Your task to perform on an android device: turn pop-ups off in chrome Image 0: 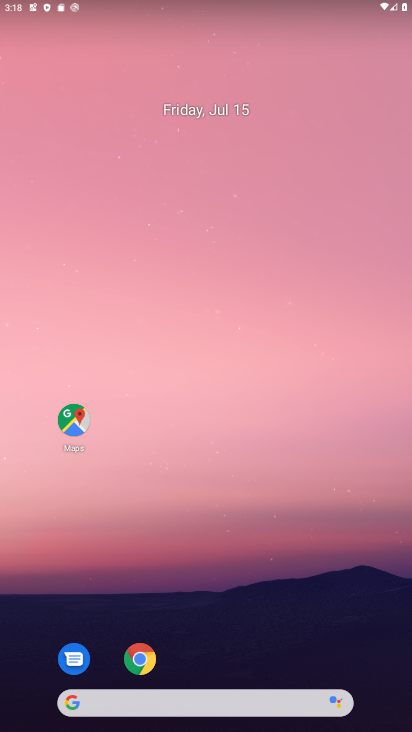
Step 0: click (152, 660)
Your task to perform on an android device: turn pop-ups off in chrome Image 1: 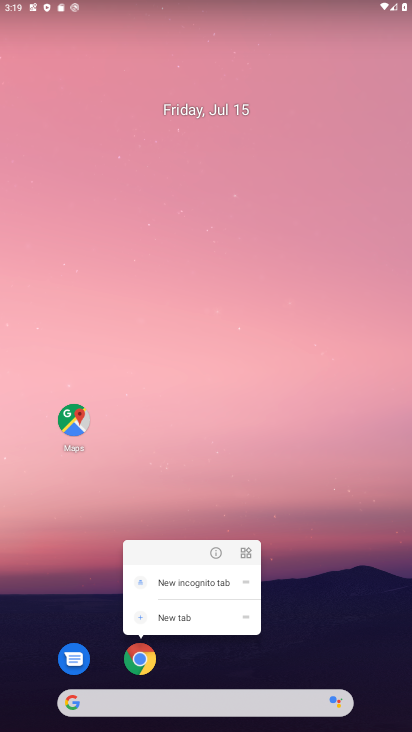
Step 1: click (151, 661)
Your task to perform on an android device: turn pop-ups off in chrome Image 2: 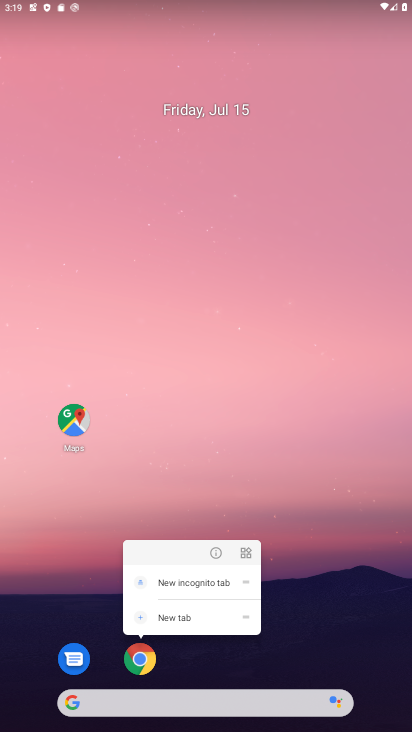
Step 2: click (129, 654)
Your task to perform on an android device: turn pop-ups off in chrome Image 3: 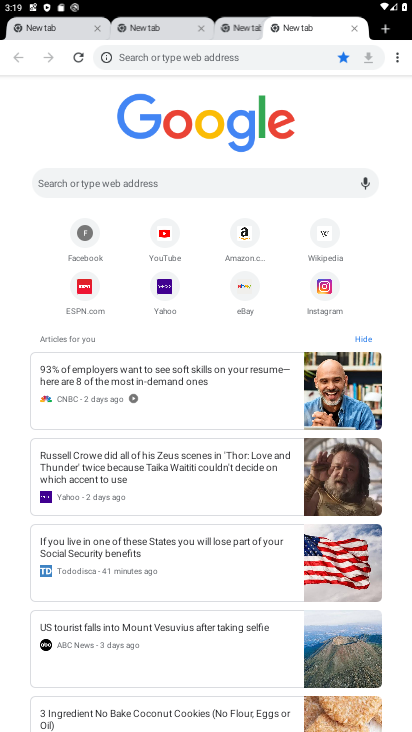
Step 3: click (400, 52)
Your task to perform on an android device: turn pop-ups off in chrome Image 4: 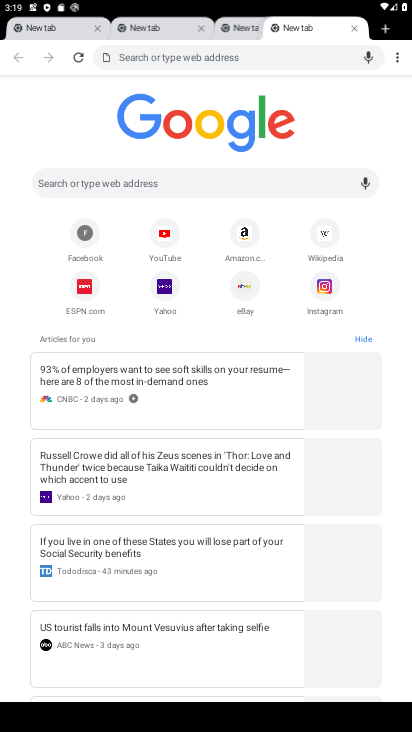
Step 4: click (398, 63)
Your task to perform on an android device: turn pop-ups off in chrome Image 5: 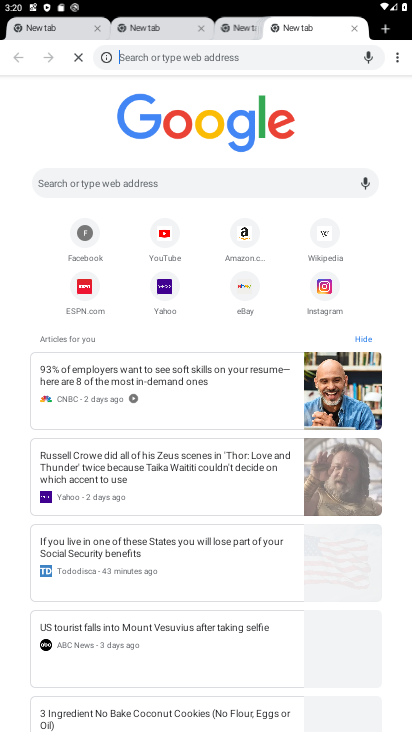
Step 5: click (394, 58)
Your task to perform on an android device: turn pop-ups off in chrome Image 6: 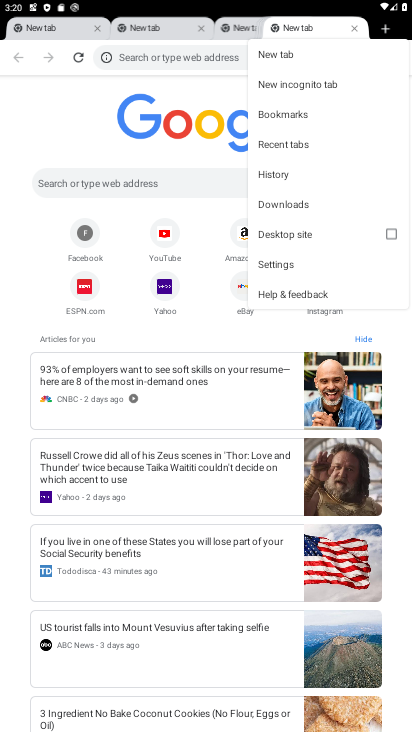
Step 6: click (291, 264)
Your task to perform on an android device: turn pop-ups off in chrome Image 7: 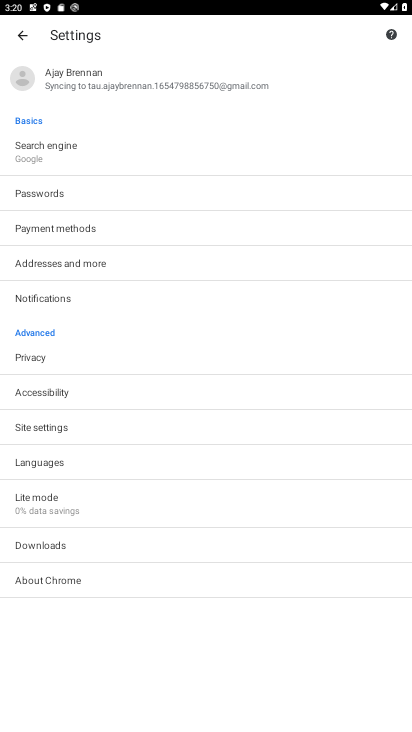
Step 7: click (28, 424)
Your task to perform on an android device: turn pop-ups off in chrome Image 8: 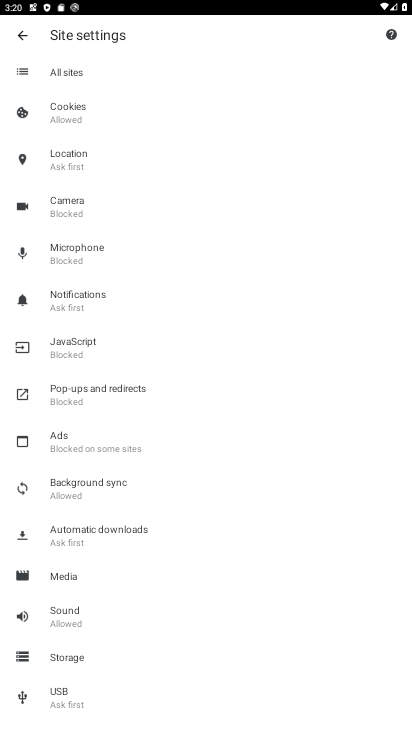
Step 8: click (80, 401)
Your task to perform on an android device: turn pop-ups off in chrome Image 9: 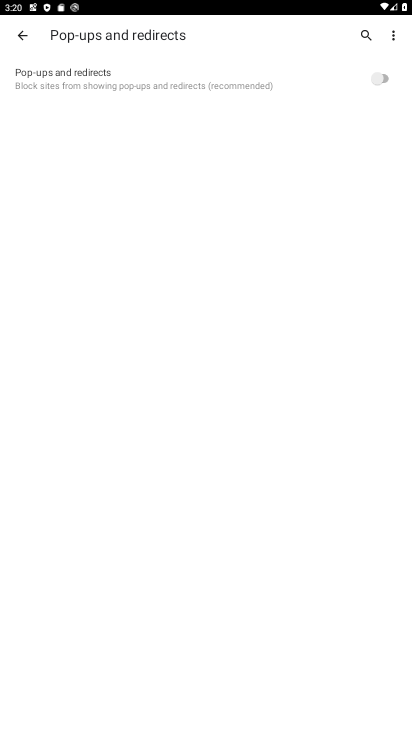
Step 9: task complete